Your task to perform on an android device: Open Youtube and go to the subscriptions tab Image 0: 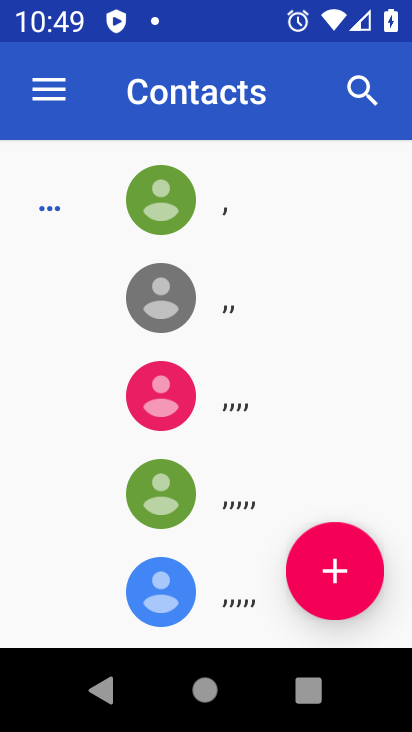
Step 0: press home button
Your task to perform on an android device: Open Youtube and go to the subscriptions tab Image 1: 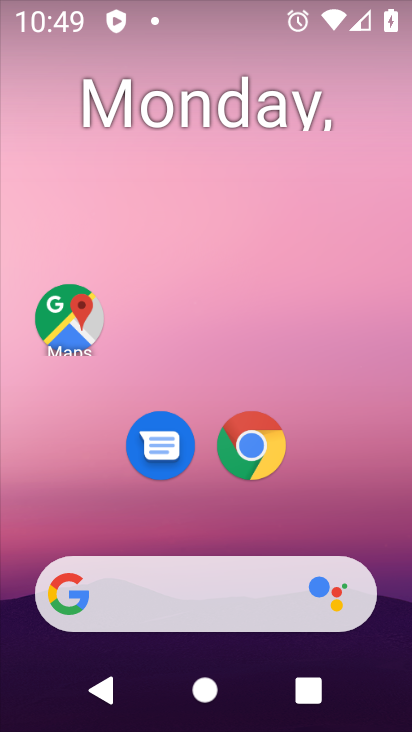
Step 1: drag from (353, 405) to (164, 104)
Your task to perform on an android device: Open Youtube and go to the subscriptions tab Image 2: 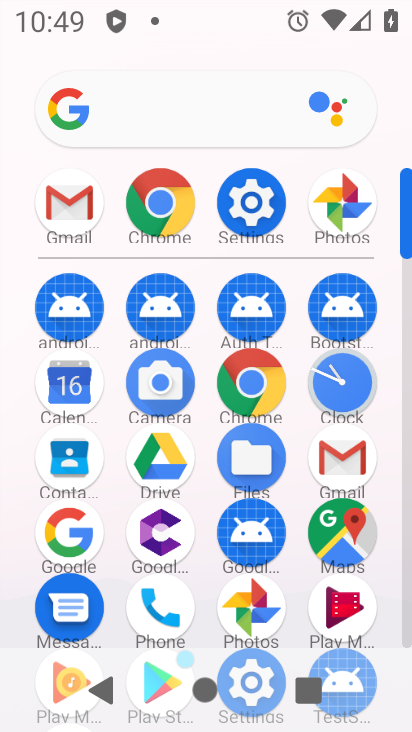
Step 2: drag from (300, 601) to (304, 376)
Your task to perform on an android device: Open Youtube and go to the subscriptions tab Image 3: 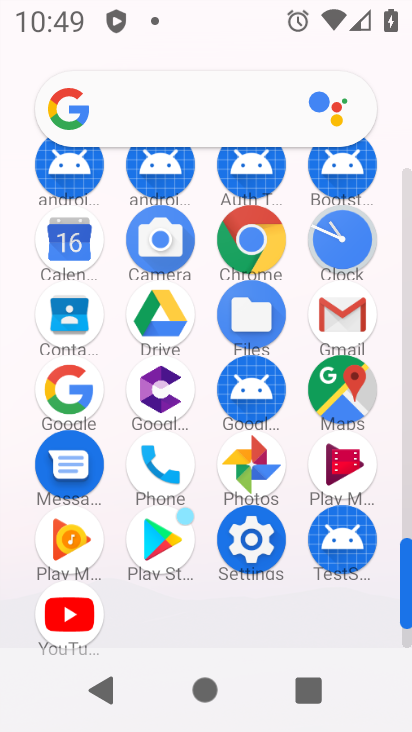
Step 3: click (63, 607)
Your task to perform on an android device: Open Youtube and go to the subscriptions tab Image 4: 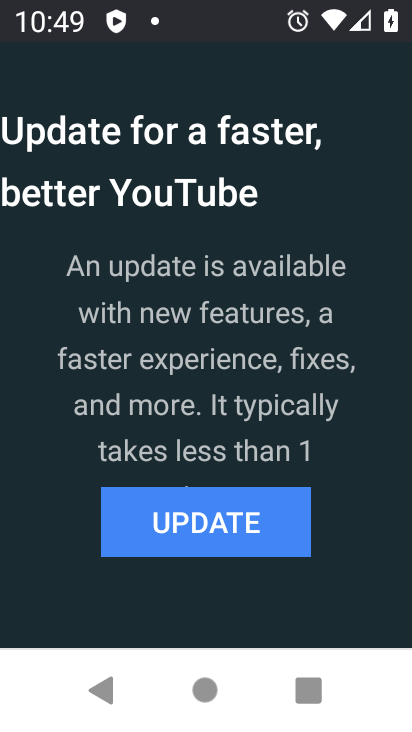
Step 4: click (186, 534)
Your task to perform on an android device: Open Youtube and go to the subscriptions tab Image 5: 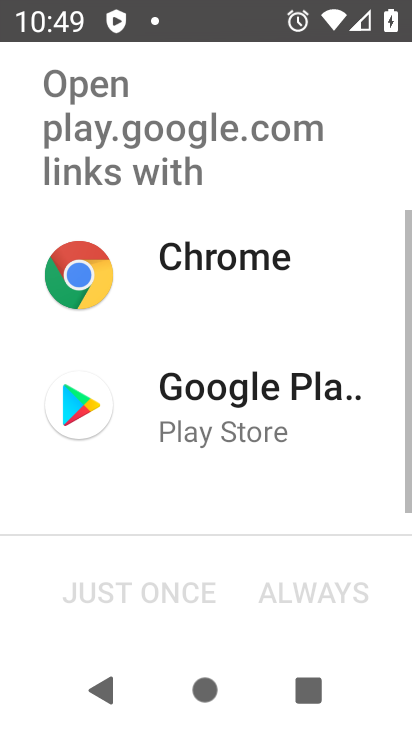
Step 5: click (197, 402)
Your task to perform on an android device: Open Youtube and go to the subscriptions tab Image 6: 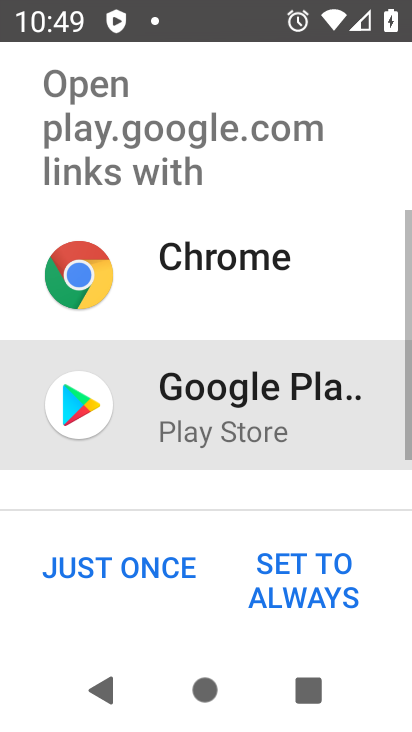
Step 6: click (148, 575)
Your task to perform on an android device: Open Youtube and go to the subscriptions tab Image 7: 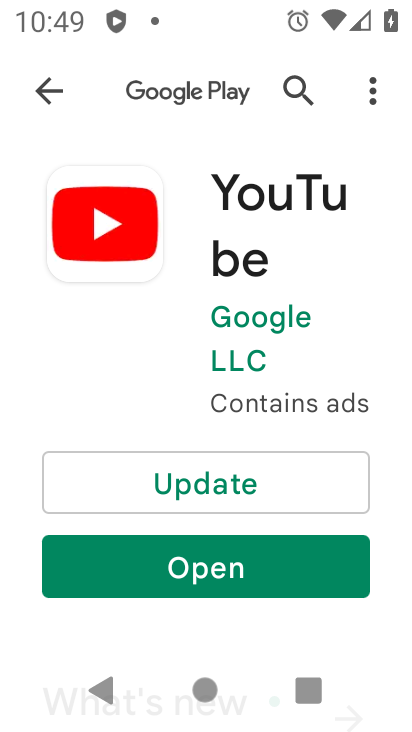
Step 7: click (198, 477)
Your task to perform on an android device: Open Youtube and go to the subscriptions tab Image 8: 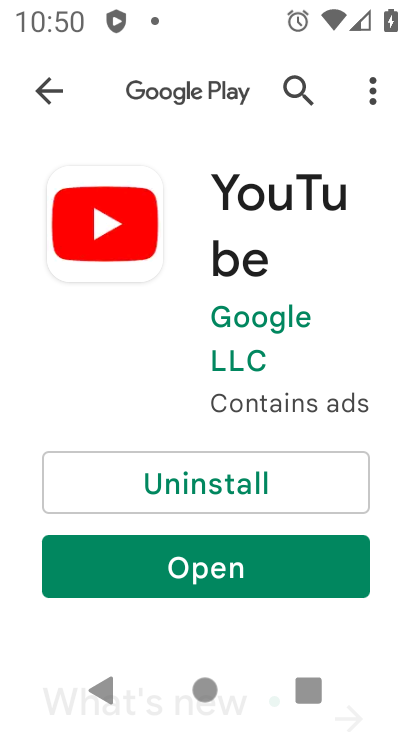
Step 8: click (208, 556)
Your task to perform on an android device: Open Youtube and go to the subscriptions tab Image 9: 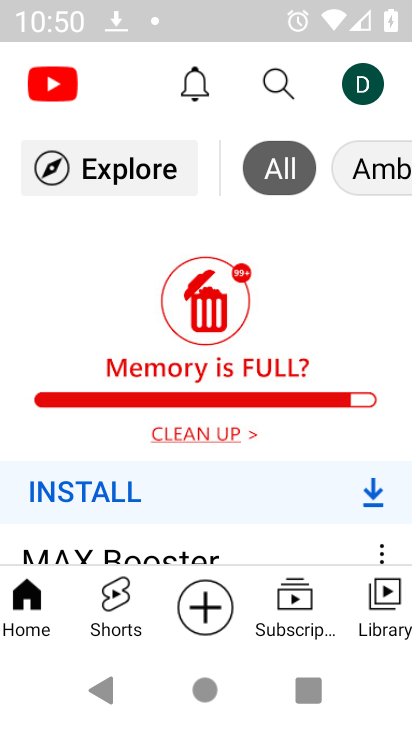
Step 9: click (289, 609)
Your task to perform on an android device: Open Youtube and go to the subscriptions tab Image 10: 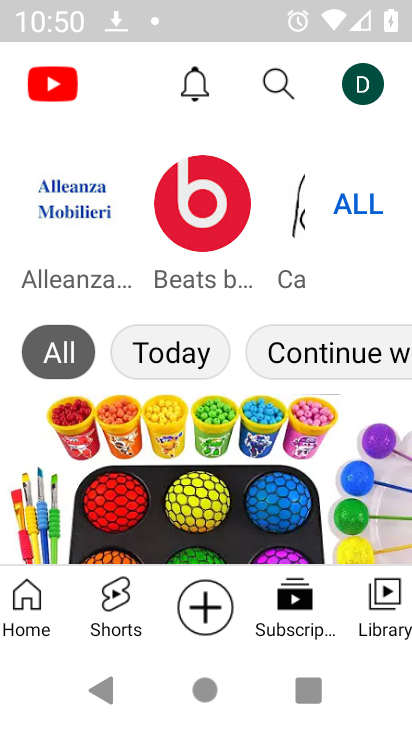
Step 10: task complete